Your task to perform on an android device: toggle javascript in the chrome app Image 0: 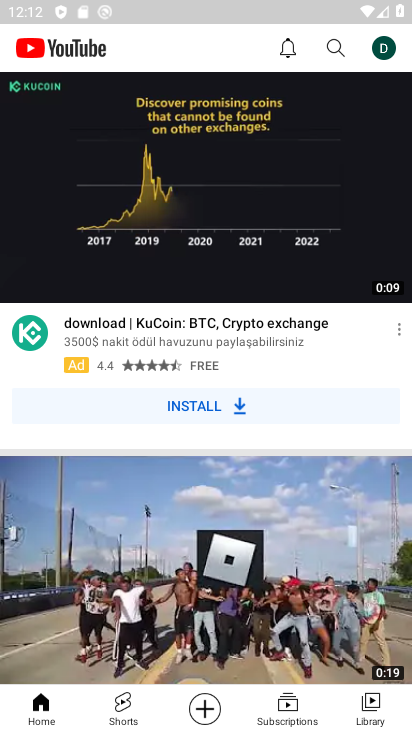
Step 0: press home button
Your task to perform on an android device: toggle javascript in the chrome app Image 1: 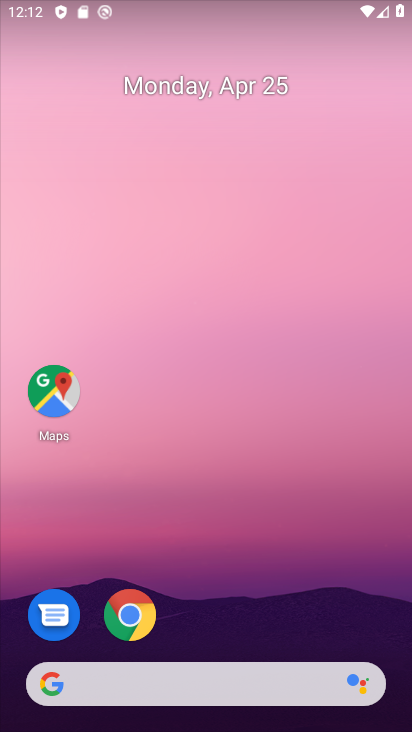
Step 1: drag from (331, 593) to (337, 101)
Your task to perform on an android device: toggle javascript in the chrome app Image 2: 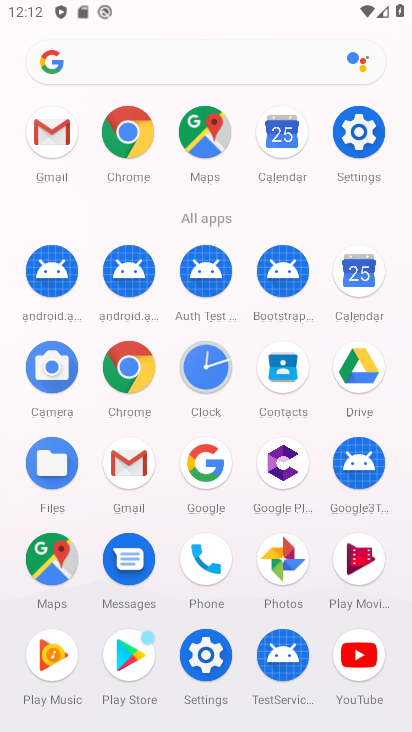
Step 2: click (134, 129)
Your task to perform on an android device: toggle javascript in the chrome app Image 3: 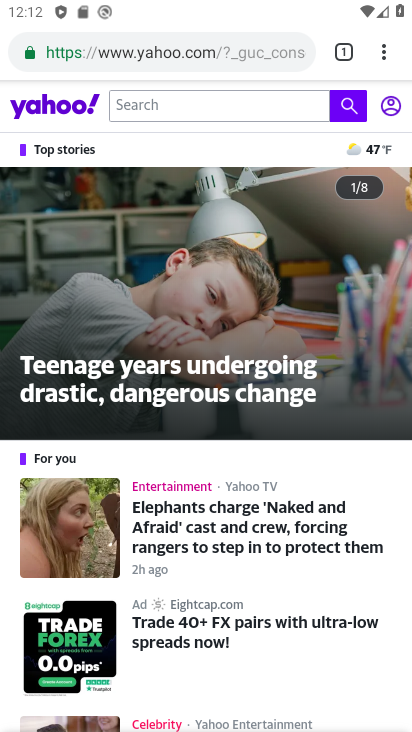
Step 3: click (382, 42)
Your task to perform on an android device: toggle javascript in the chrome app Image 4: 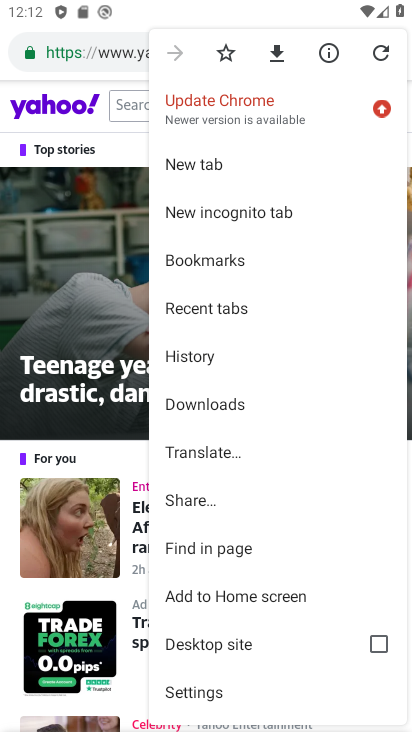
Step 4: drag from (303, 655) to (316, 461)
Your task to perform on an android device: toggle javascript in the chrome app Image 5: 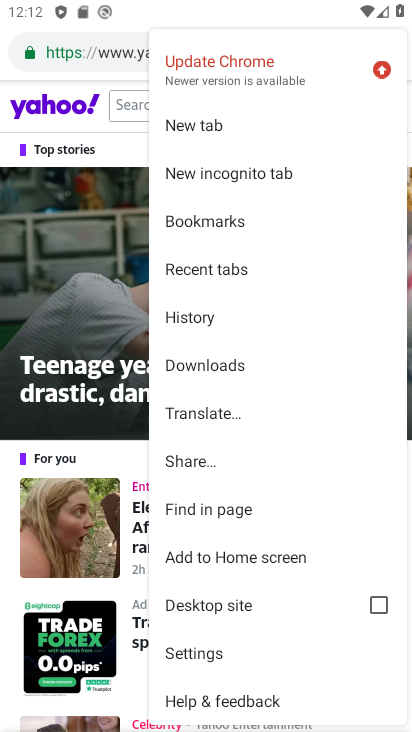
Step 5: click (232, 654)
Your task to perform on an android device: toggle javascript in the chrome app Image 6: 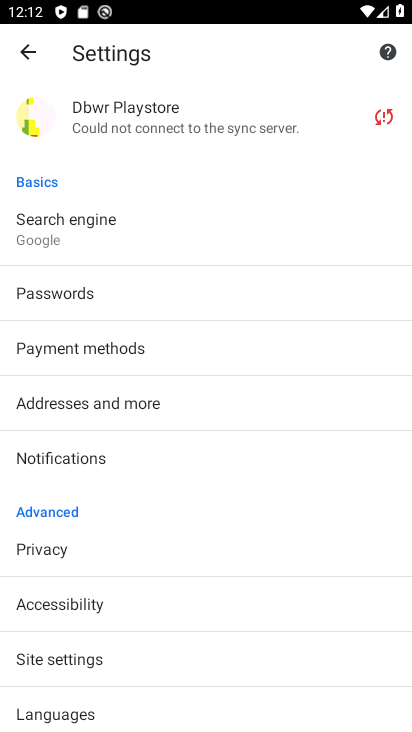
Step 6: drag from (273, 655) to (318, 506)
Your task to perform on an android device: toggle javascript in the chrome app Image 7: 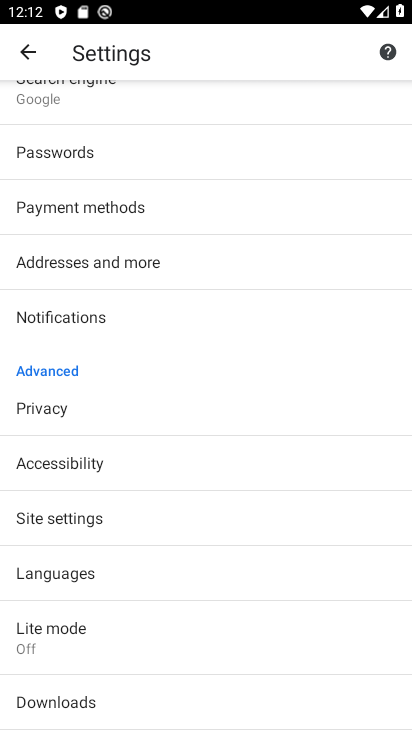
Step 7: drag from (324, 649) to (333, 523)
Your task to perform on an android device: toggle javascript in the chrome app Image 8: 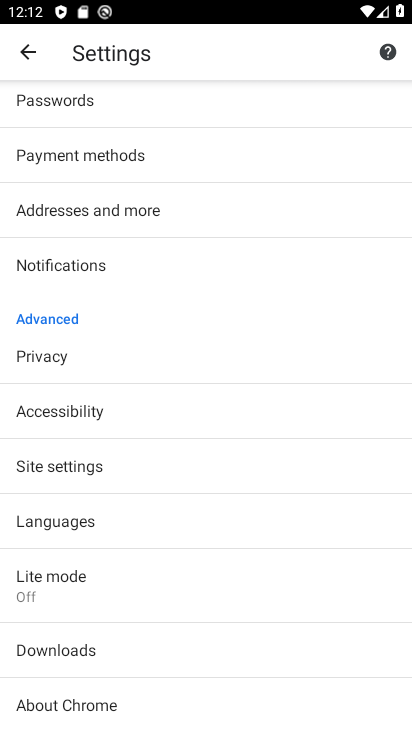
Step 8: drag from (304, 673) to (338, 493)
Your task to perform on an android device: toggle javascript in the chrome app Image 9: 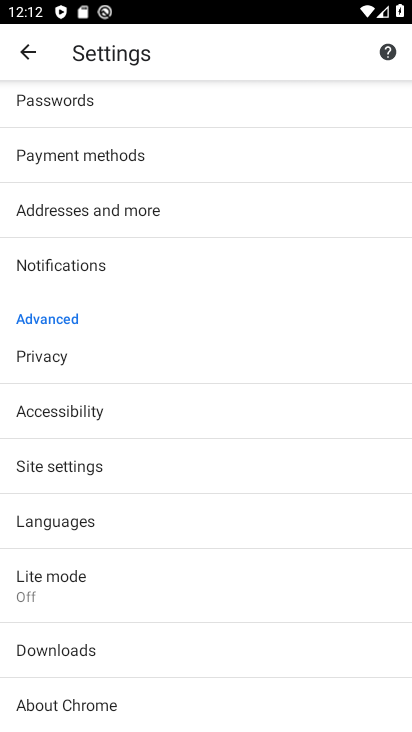
Step 9: drag from (339, 277) to (322, 441)
Your task to perform on an android device: toggle javascript in the chrome app Image 10: 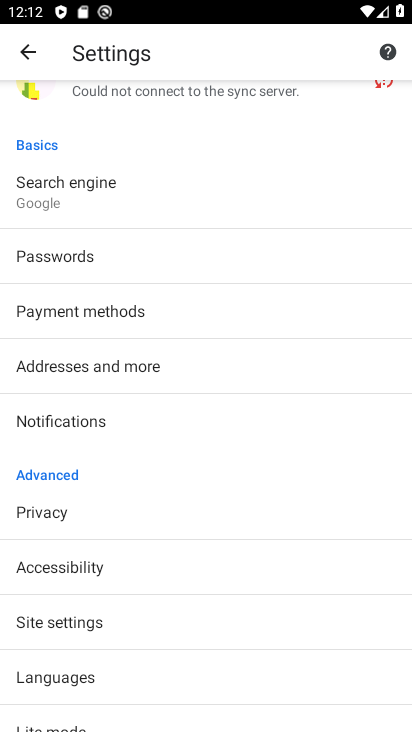
Step 10: drag from (344, 283) to (347, 442)
Your task to perform on an android device: toggle javascript in the chrome app Image 11: 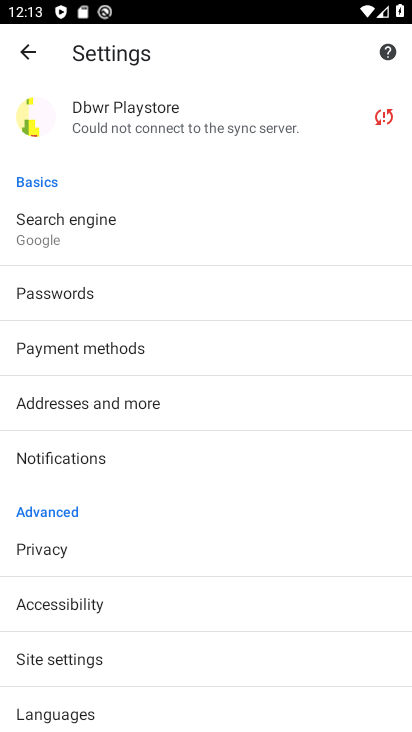
Step 11: drag from (326, 301) to (311, 507)
Your task to perform on an android device: toggle javascript in the chrome app Image 12: 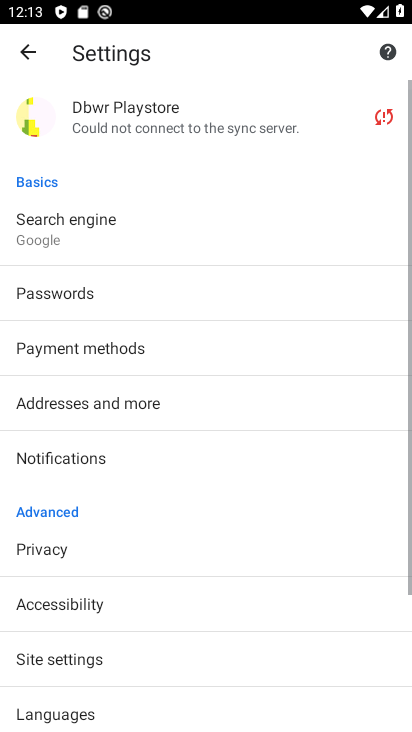
Step 12: drag from (301, 609) to (310, 466)
Your task to perform on an android device: toggle javascript in the chrome app Image 13: 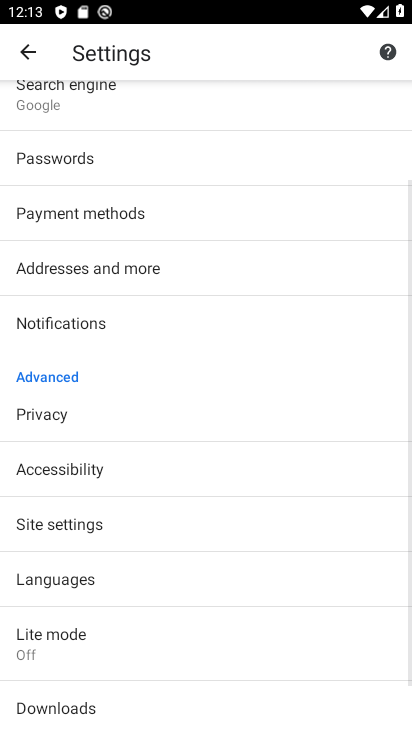
Step 13: drag from (302, 634) to (313, 540)
Your task to perform on an android device: toggle javascript in the chrome app Image 14: 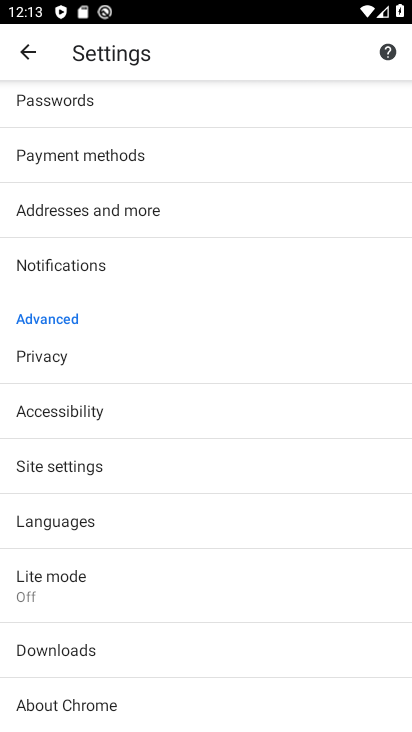
Step 14: click (301, 413)
Your task to perform on an android device: toggle javascript in the chrome app Image 15: 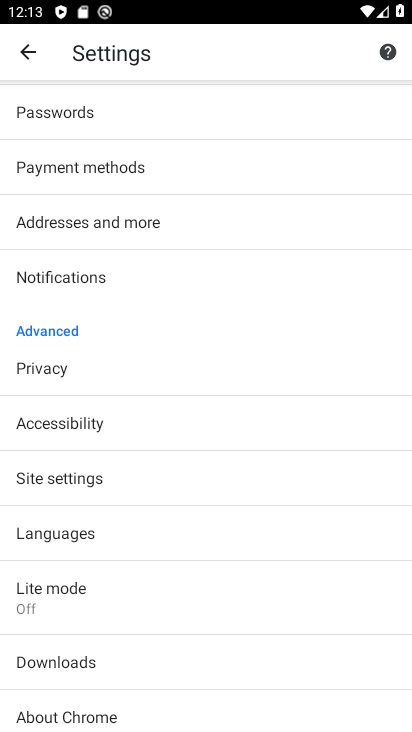
Step 15: drag from (299, 372) to (302, 437)
Your task to perform on an android device: toggle javascript in the chrome app Image 16: 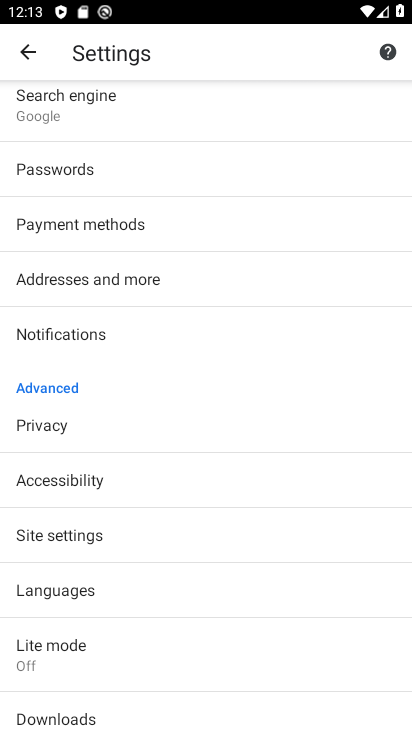
Step 16: drag from (285, 348) to (281, 408)
Your task to perform on an android device: toggle javascript in the chrome app Image 17: 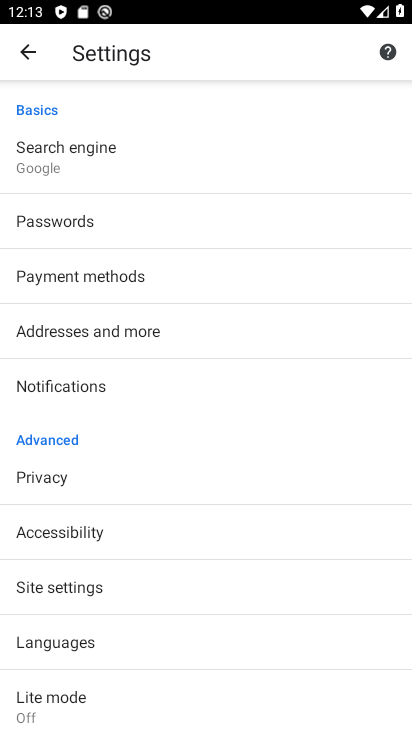
Step 17: drag from (281, 382) to (244, 498)
Your task to perform on an android device: toggle javascript in the chrome app Image 18: 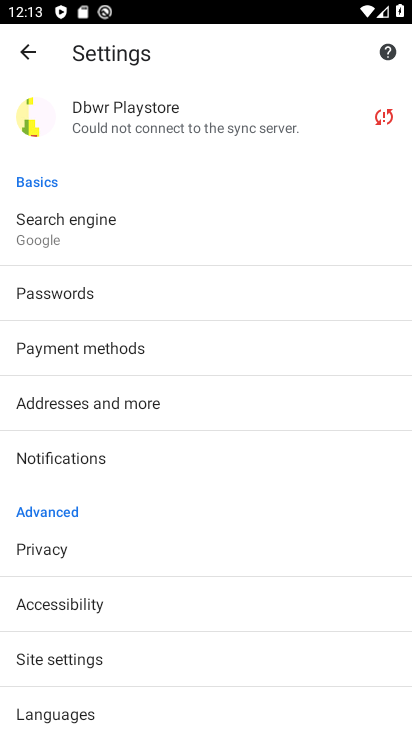
Step 18: drag from (218, 587) to (218, 504)
Your task to perform on an android device: toggle javascript in the chrome app Image 19: 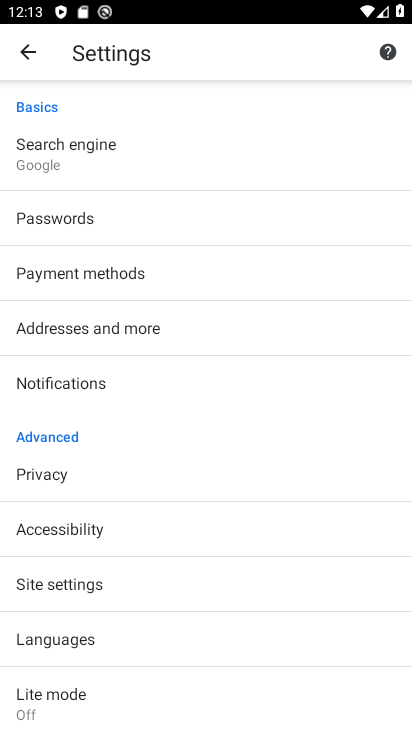
Step 19: click (183, 587)
Your task to perform on an android device: toggle javascript in the chrome app Image 20: 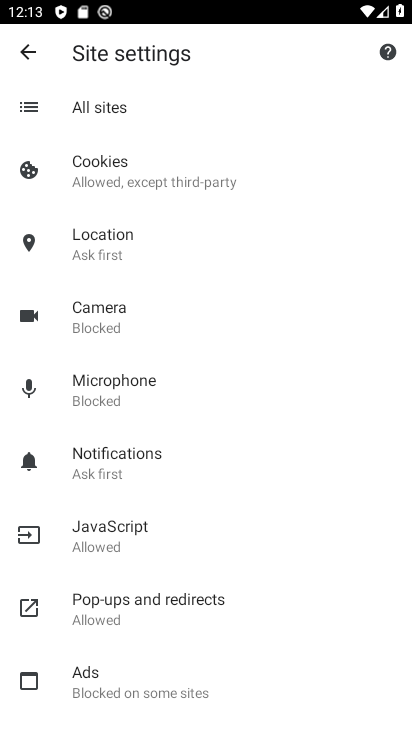
Step 20: drag from (320, 613) to (317, 507)
Your task to perform on an android device: toggle javascript in the chrome app Image 21: 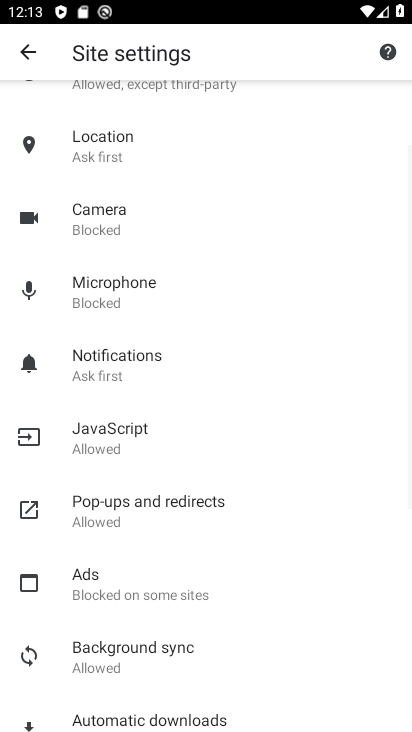
Step 21: drag from (307, 649) to (305, 531)
Your task to perform on an android device: toggle javascript in the chrome app Image 22: 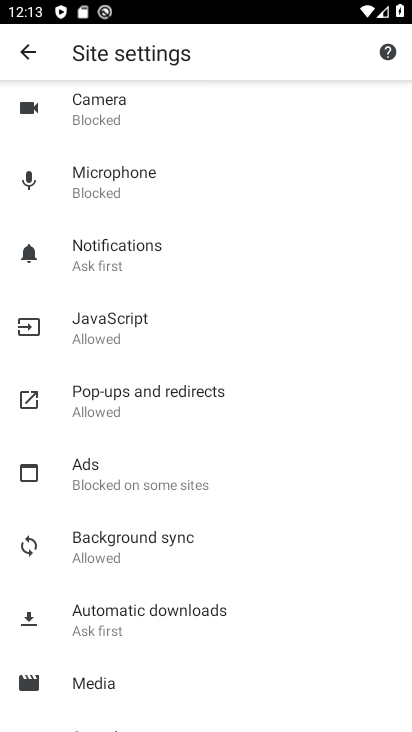
Step 22: click (168, 333)
Your task to perform on an android device: toggle javascript in the chrome app Image 23: 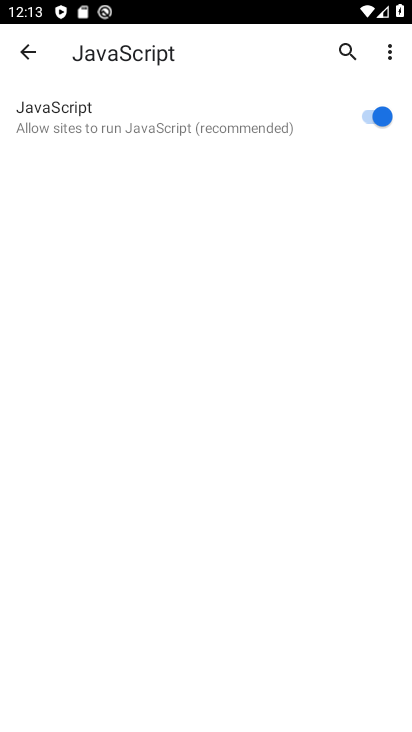
Step 23: click (379, 110)
Your task to perform on an android device: toggle javascript in the chrome app Image 24: 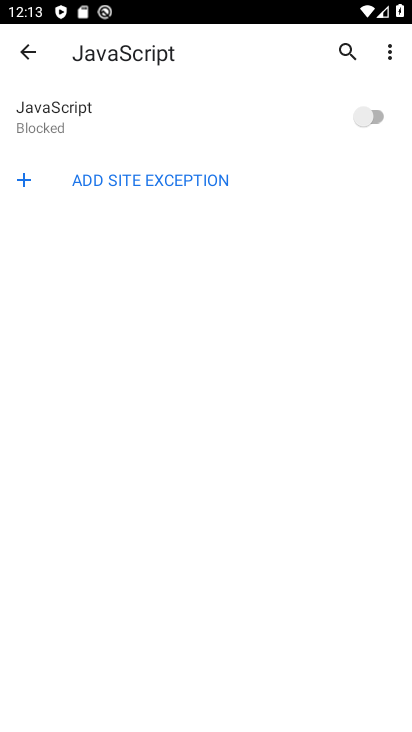
Step 24: task complete